Your task to perform on an android device: turn off data saver in the chrome app Image 0: 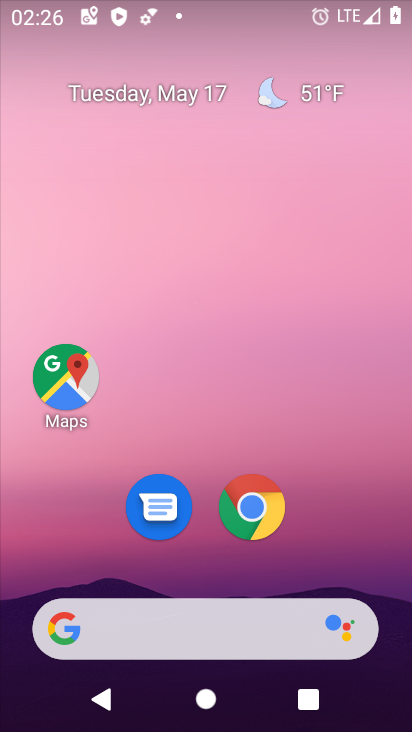
Step 0: click (251, 501)
Your task to perform on an android device: turn off data saver in the chrome app Image 1: 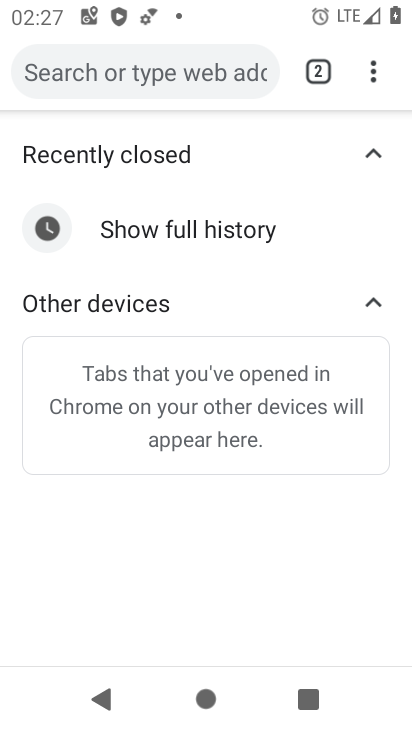
Step 1: click (362, 78)
Your task to perform on an android device: turn off data saver in the chrome app Image 2: 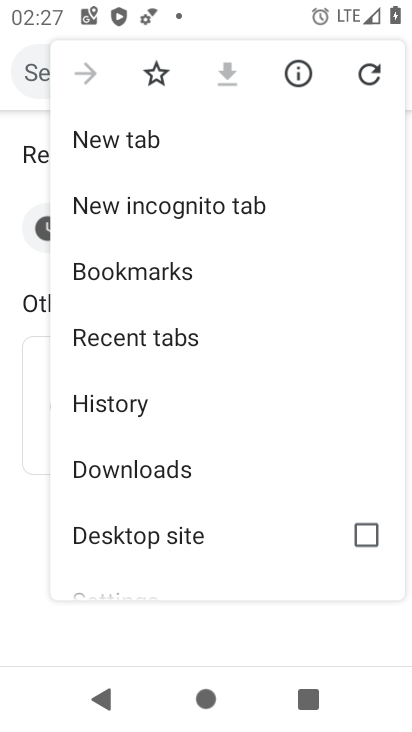
Step 2: drag from (132, 521) to (142, 378)
Your task to perform on an android device: turn off data saver in the chrome app Image 3: 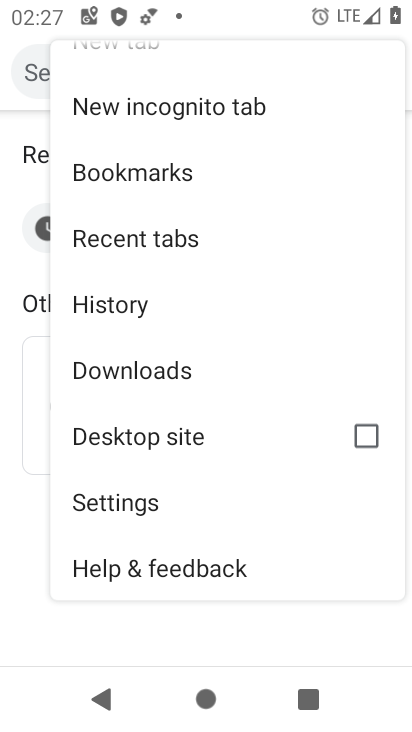
Step 3: click (164, 506)
Your task to perform on an android device: turn off data saver in the chrome app Image 4: 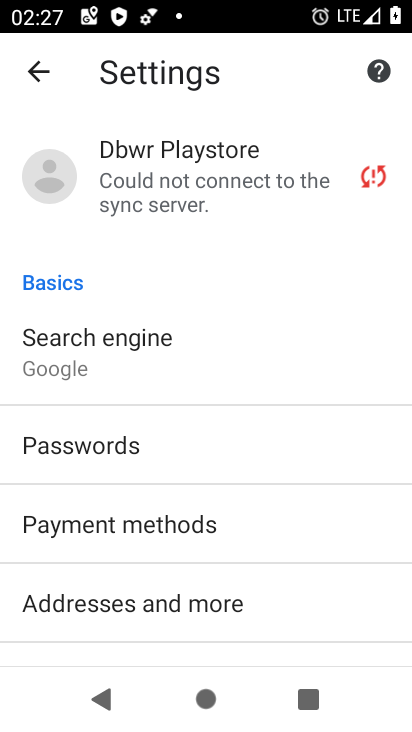
Step 4: drag from (158, 542) to (174, 323)
Your task to perform on an android device: turn off data saver in the chrome app Image 5: 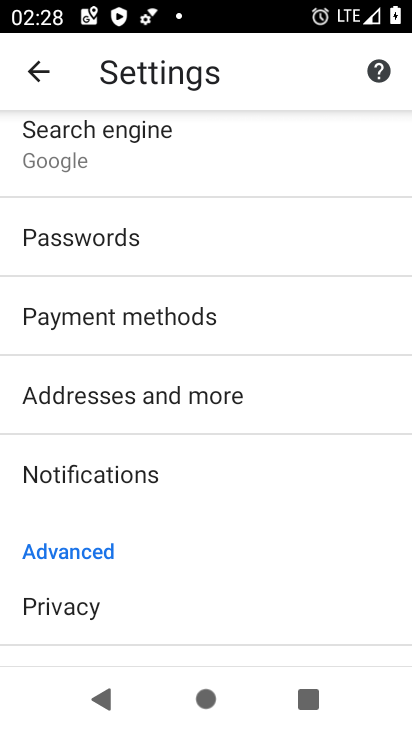
Step 5: drag from (172, 587) to (165, 413)
Your task to perform on an android device: turn off data saver in the chrome app Image 6: 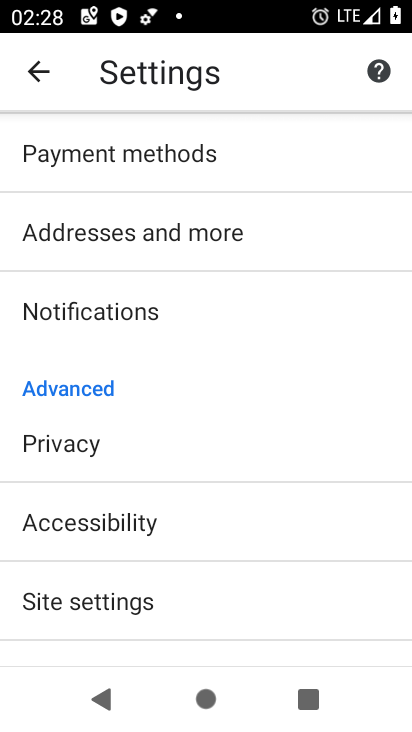
Step 6: drag from (143, 599) to (162, 441)
Your task to perform on an android device: turn off data saver in the chrome app Image 7: 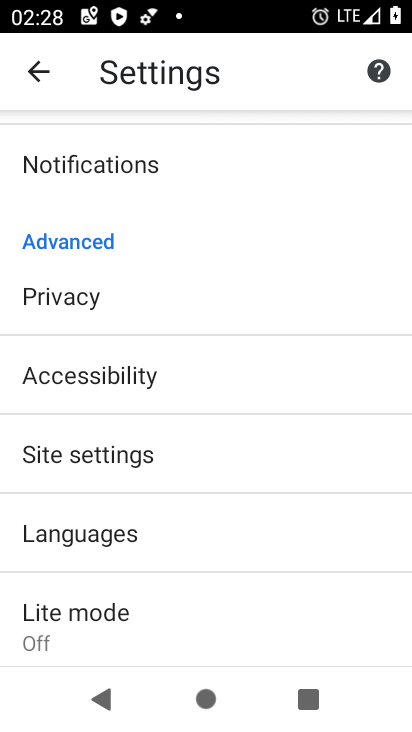
Step 7: drag from (158, 604) to (161, 465)
Your task to perform on an android device: turn off data saver in the chrome app Image 8: 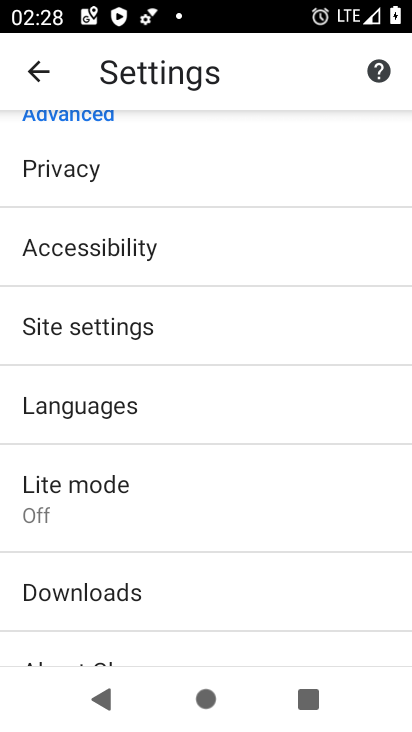
Step 8: click (157, 495)
Your task to perform on an android device: turn off data saver in the chrome app Image 9: 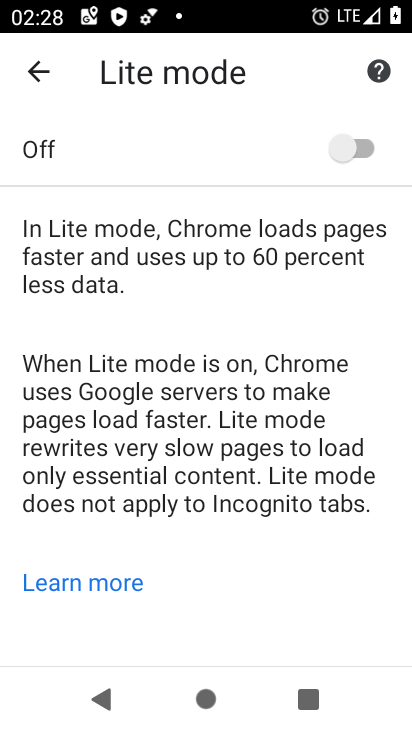
Step 9: task complete